Your task to perform on an android device: Do I have any events tomorrow? Image 0: 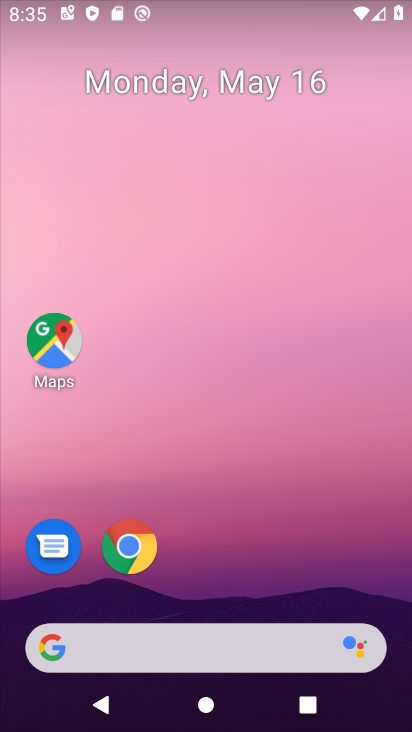
Step 0: drag from (269, 673) to (316, 34)
Your task to perform on an android device: Do I have any events tomorrow? Image 1: 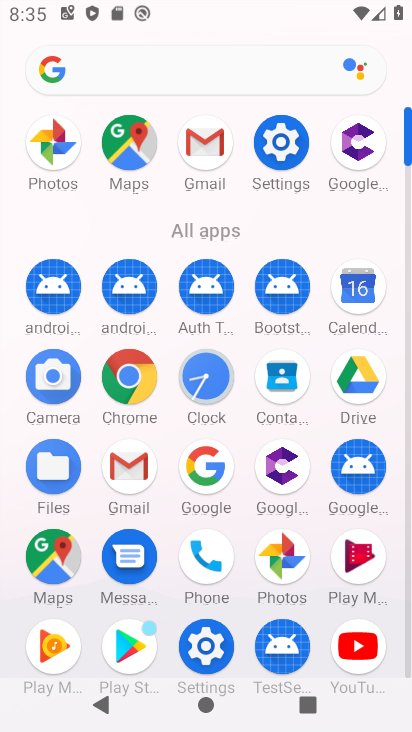
Step 1: click (361, 307)
Your task to perform on an android device: Do I have any events tomorrow? Image 2: 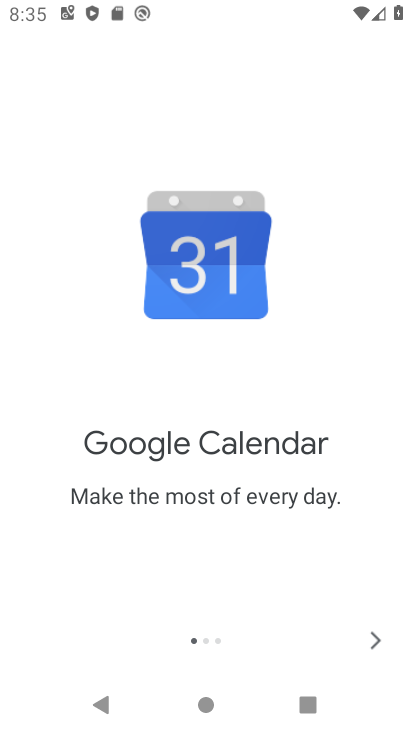
Step 2: click (364, 644)
Your task to perform on an android device: Do I have any events tomorrow? Image 3: 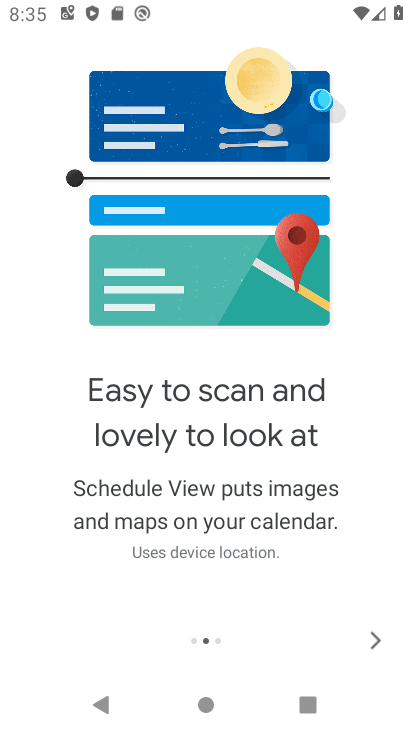
Step 3: click (372, 647)
Your task to perform on an android device: Do I have any events tomorrow? Image 4: 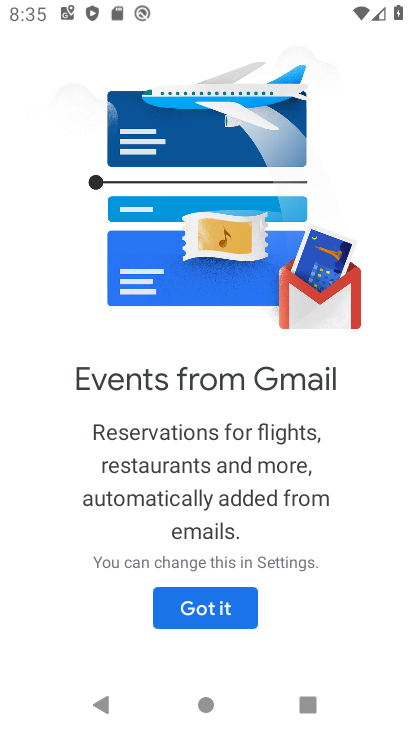
Step 4: click (236, 591)
Your task to perform on an android device: Do I have any events tomorrow? Image 5: 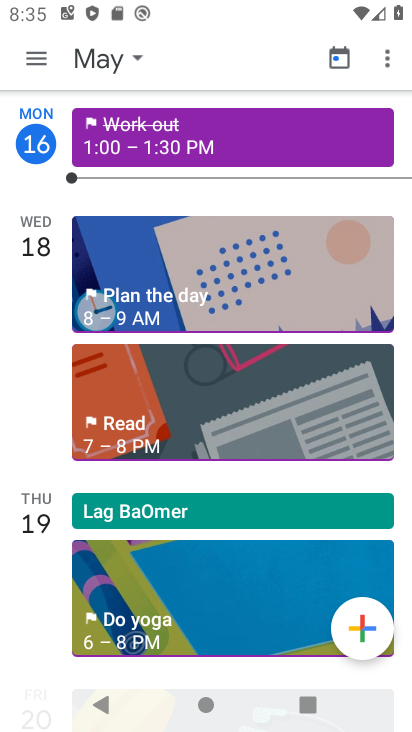
Step 5: click (35, 58)
Your task to perform on an android device: Do I have any events tomorrow? Image 6: 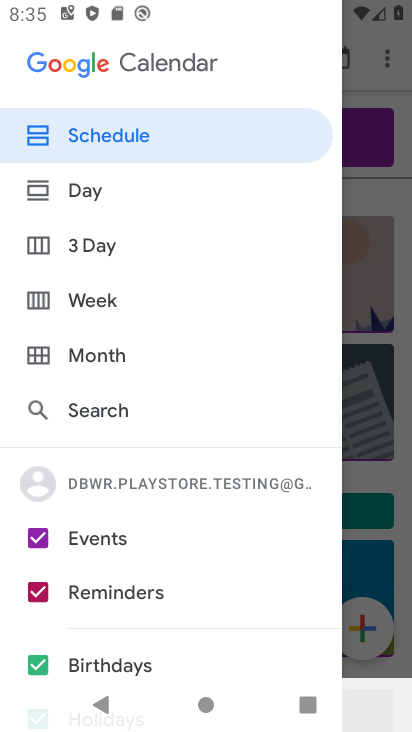
Step 6: click (108, 243)
Your task to perform on an android device: Do I have any events tomorrow? Image 7: 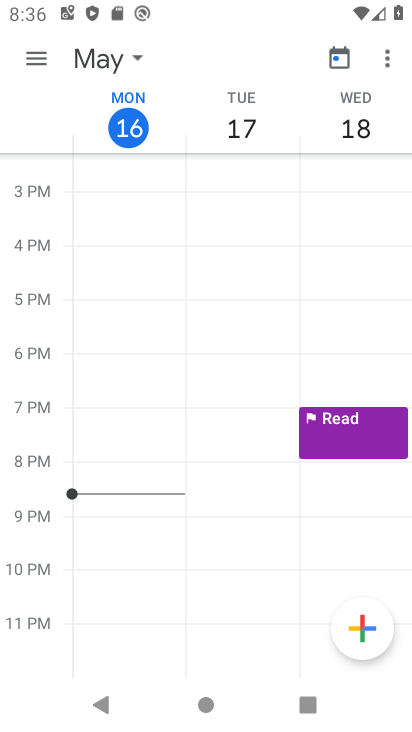
Step 7: click (238, 118)
Your task to perform on an android device: Do I have any events tomorrow? Image 8: 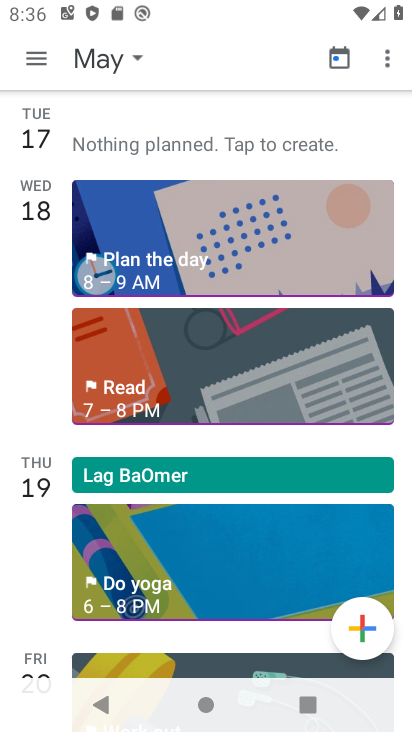
Step 8: task complete